Your task to perform on an android device: Do I have any events today? Image 0: 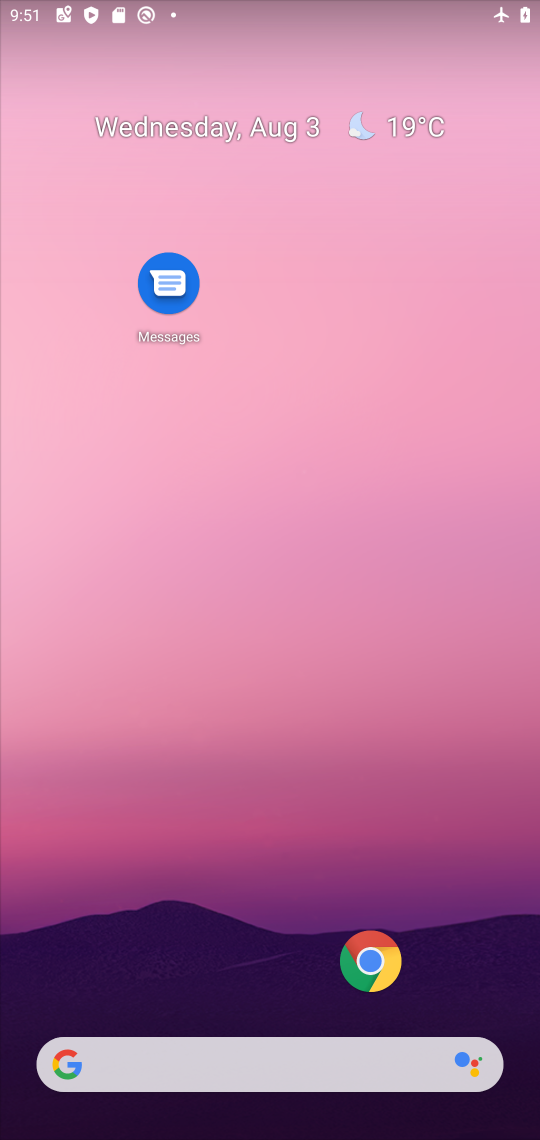
Step 0: drag from (287, 1012) to (204, 61)
Your task to perform on an android device: Do I have any events today? Image 1: 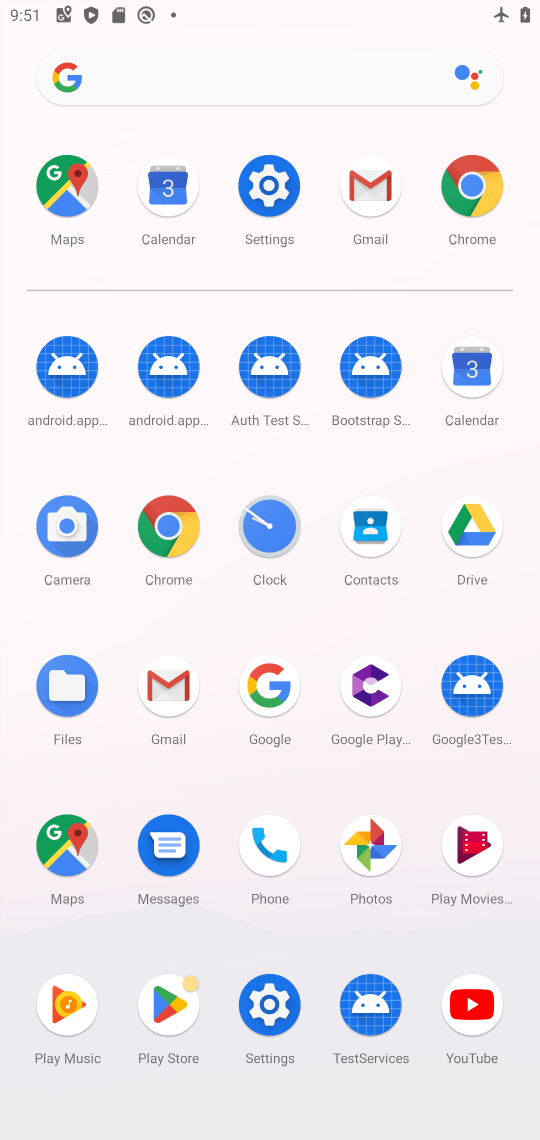
Step 1: click (459, 376)
Your task to perform on an android device: Do I have any events today? Image 2: 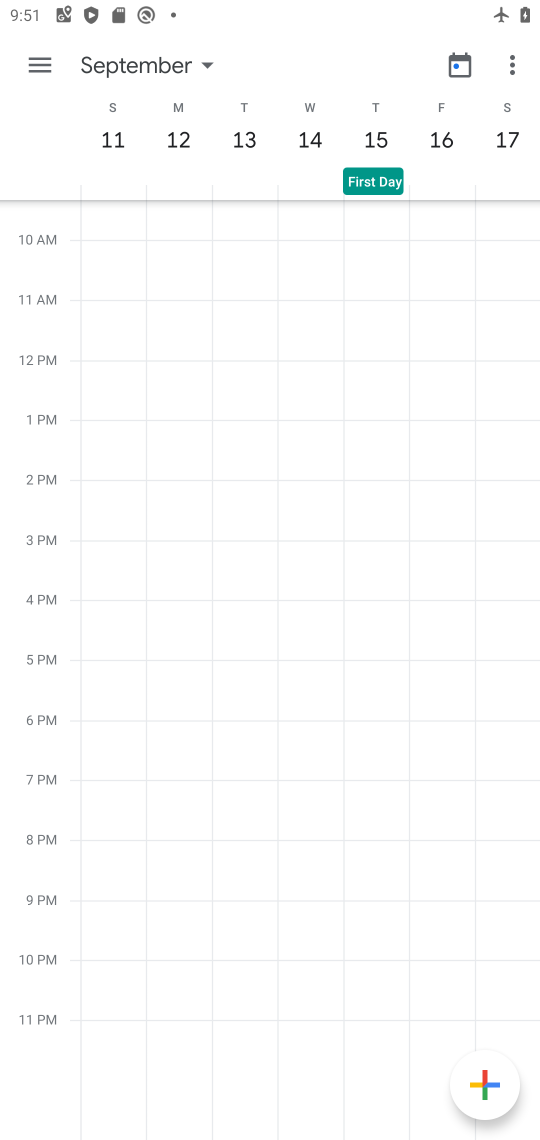
Step 2: click (469, 59)
Your task to perform on an android device: Do I have any events today? Image 3: 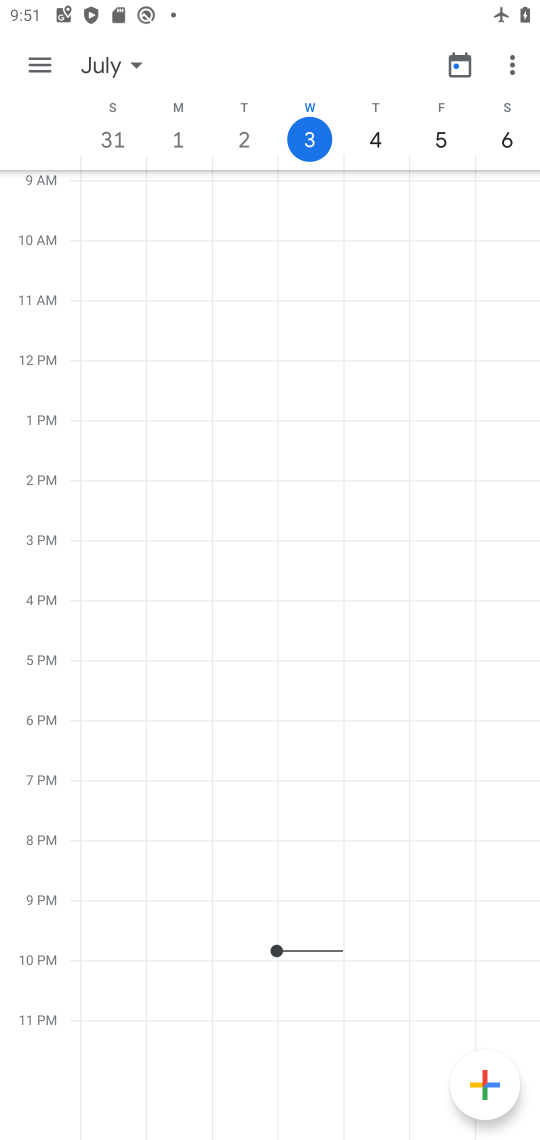
Step 3: click (304, 142)
Your task to perform on an android device: Do I have any events today? Image 4: 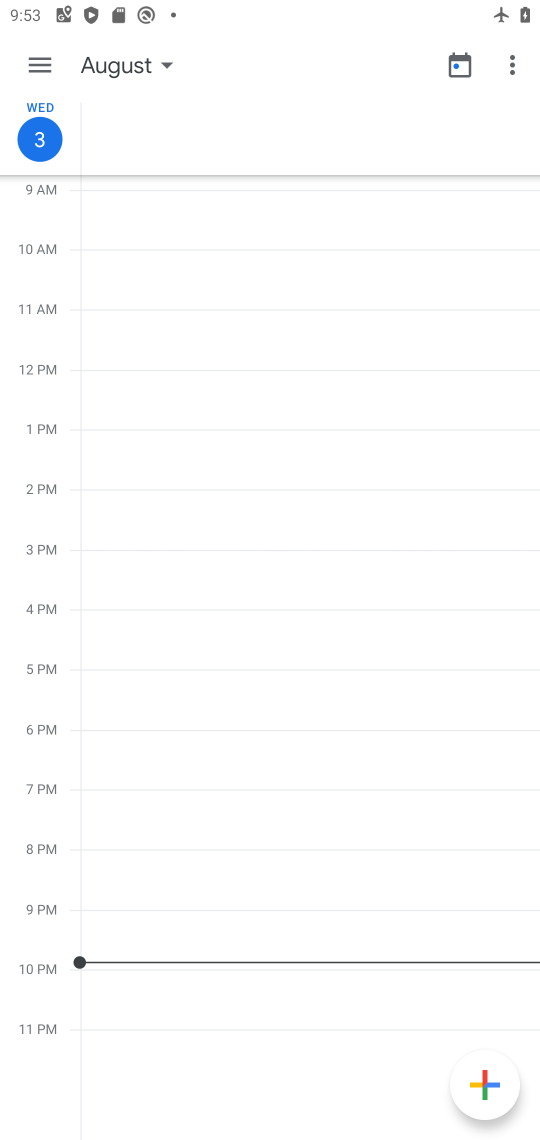
Step 4: click (22, 133)
Your task to perform on an android device: Do I have any events today? Image 5: 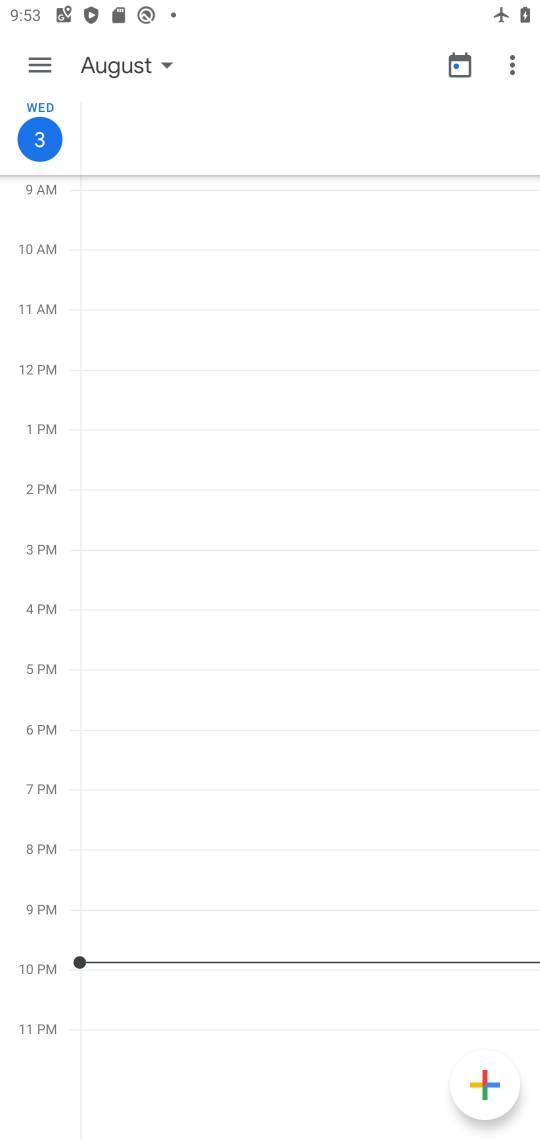
Step 5: task complete